Your task to perform on an android device: Go to display settings Image 0: 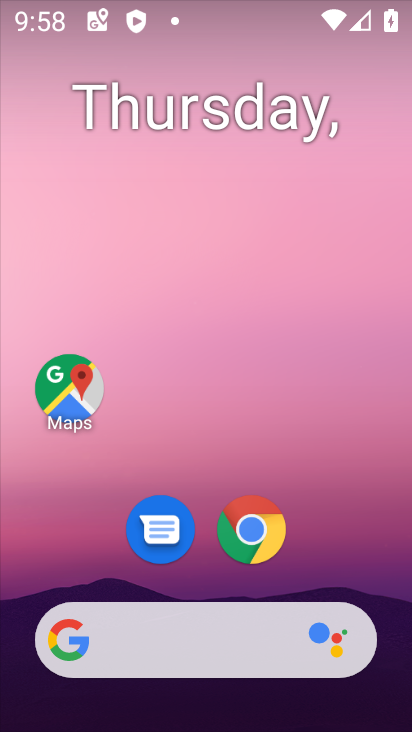
Step 0: drag from (238, 642) to (314, 14)
Your task to perform on an android device: Go to display settings Image 1: 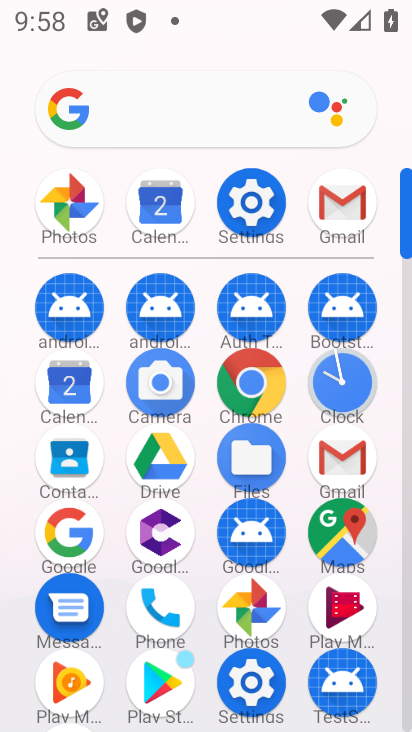
Step 1: click (253, 197)
Your task to perform on an android device: Go to display settings Image 2: 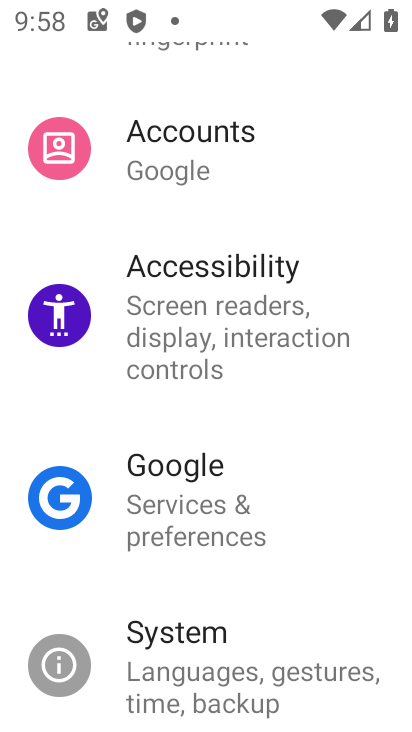
Step 2: drag from (278, 268) to (196, 726)
Your task to perform on an android device: Go to display settings Image 3: 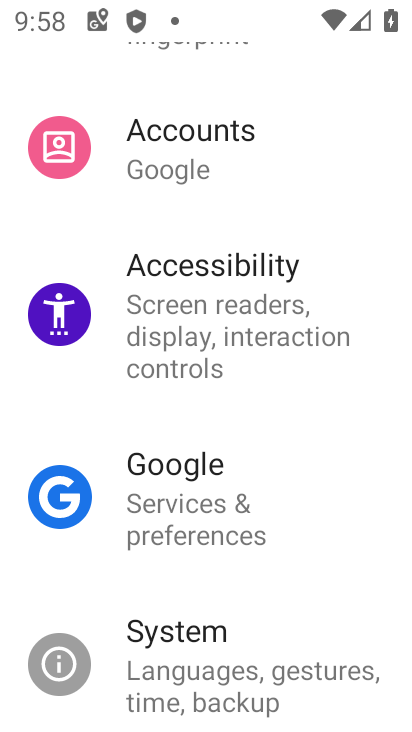
Step 3: drag from (309, 121) to (251, 672)
Your task to perform on an android device: Go to display settings Image 4: 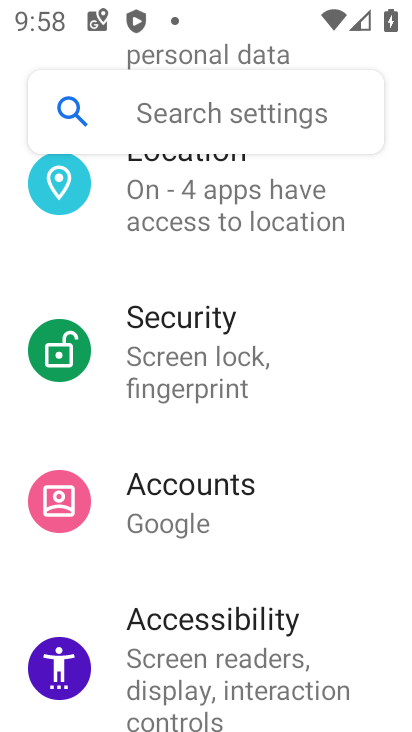
Step 4: drag from (299, 237) to (208, 685)
Your task to perform on an android device: Go to display settings Image 5: 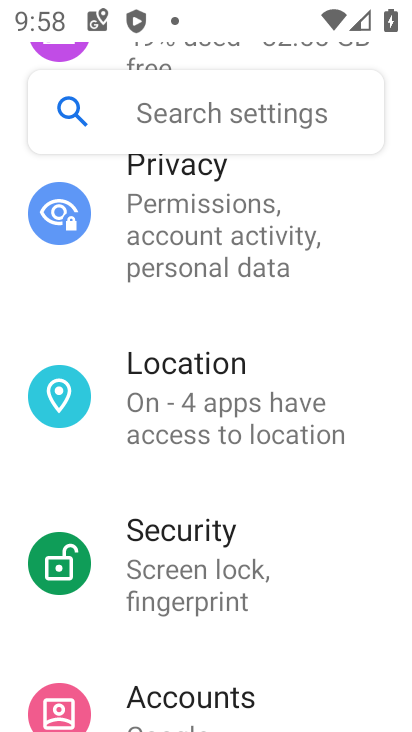
Step 5: drag from (326, 189) to (215, 724)
Your task to perform on an android device: Go to display settings Image 6: 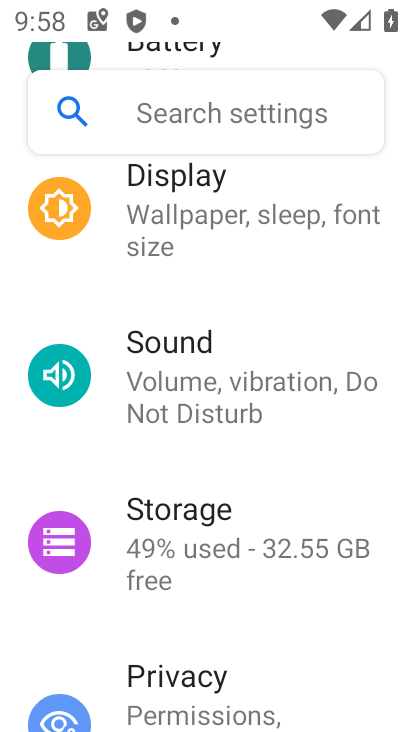
Step 6: click (282, 209)
Your task to perform on an android device: Go to display settings Image 7: 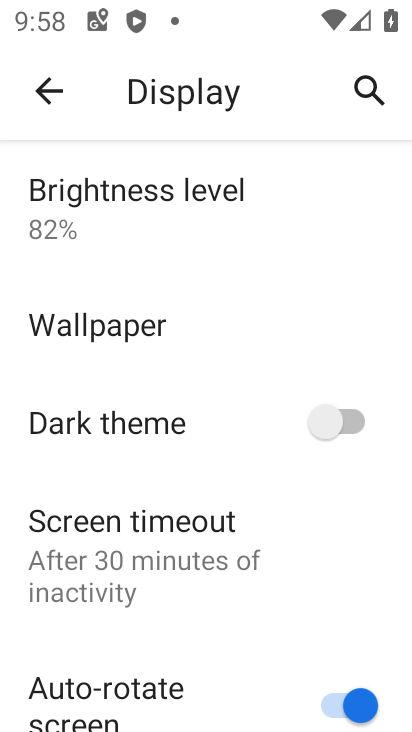
Step 7: task complete